Your task to perform on an android device: When is my next appointment? Image 0: 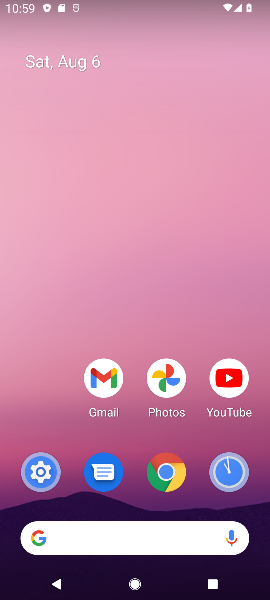
Step 0: drag from (191, 323) to (88, 68)
Your task to perform on an android device: When is my next appointment? Image 1: 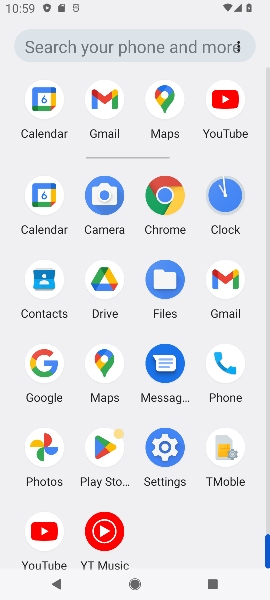
Step 1: click (49, 198)
Your task to perform on an android device: When is my next appointment? Image 2: 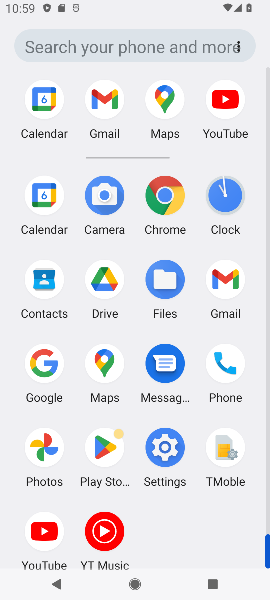
Step 2: click (45, 198)
Your task to perform on an android device: When is my next appointment? Image 3: 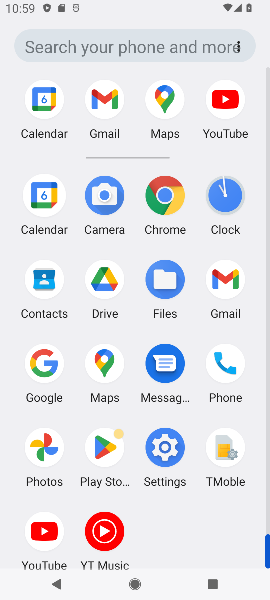
Step 3: click (45, 198)
Your task to perform on an android device: When is my next appointment? Image 4: 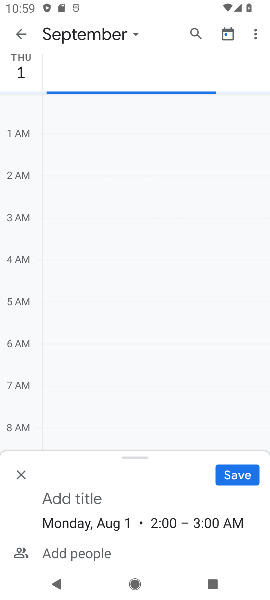
Step 4: click (45, 199)
Your task to perform on an android device: When is my next appointment? Image 5: 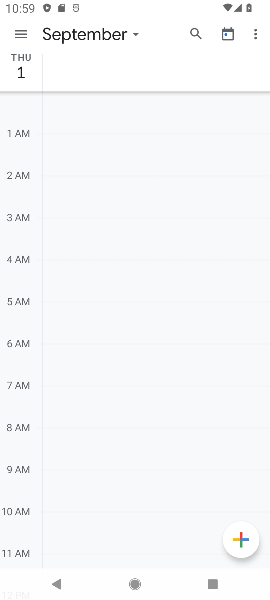
Step 5: click (135, 34)
Your task to perform on an android device: When is my next appointment? Image 6: 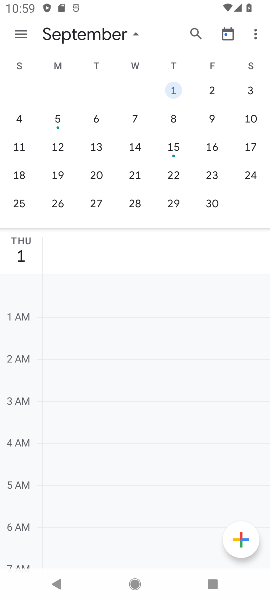
Step 6: task complete